Your task to perform on an android device: Check the weather Image 0: 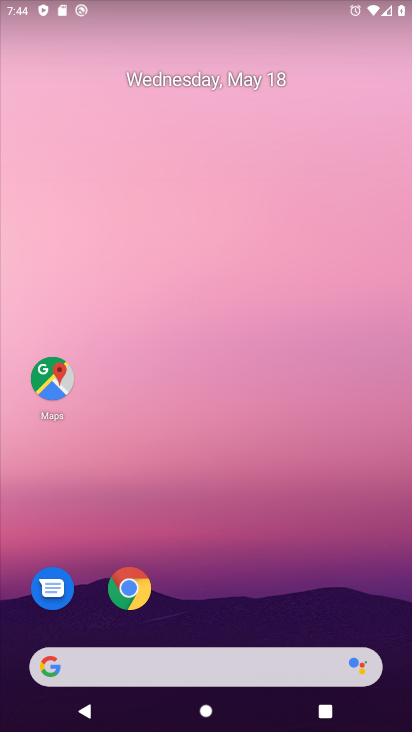
Step 0: drag from (270, 456) to (337, 93)
Your task to perform on an android device: Check the weather Image 1: 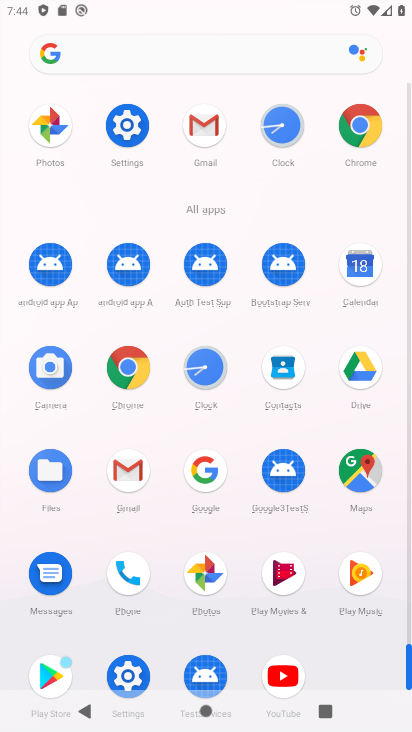
Step 1: click (214, 51)
Your task to perform on an android device: Check the weather Image 2: 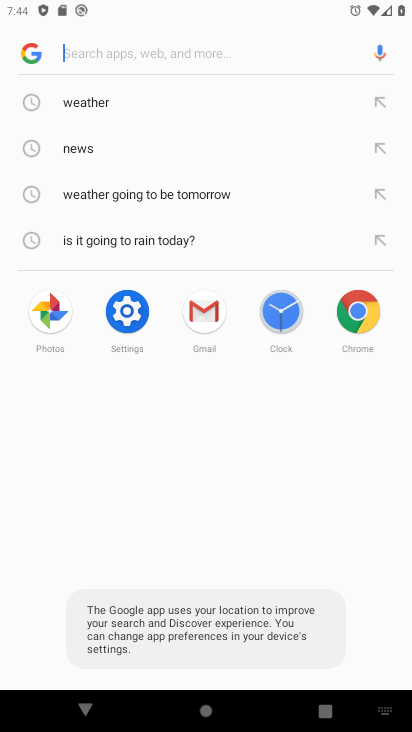
Step 2: click (97, 91)
Your task to perform on an android device: Check the weather Image 3: 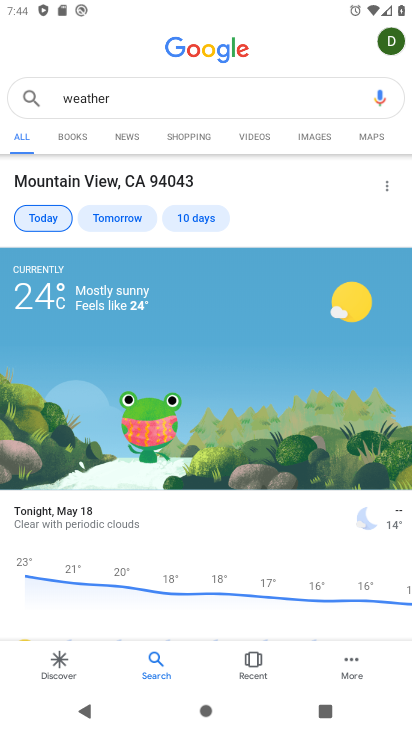
Step 3: task complete